Your task to perform on an android device: Go to privacy settings Image 0: 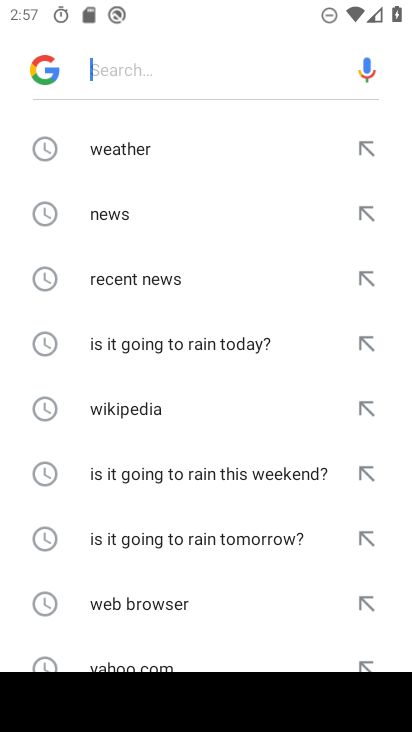
Step 0: press home button
Your task to perform on an android device: Go to privacy settings Image 1: 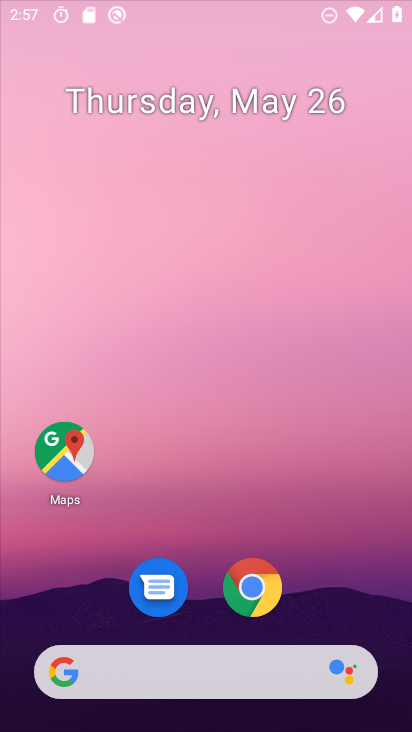
Step 1: drag from (381, 488) to (356, 43)
Your task to perform on an android device: Go to privacy settings Image 2: 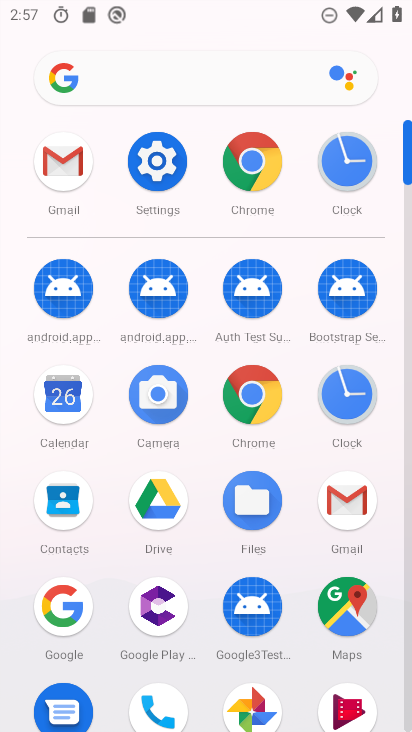
Step 2: click (161, 173)
Your task to perform on an android device: Go to privacy settings Image 3: 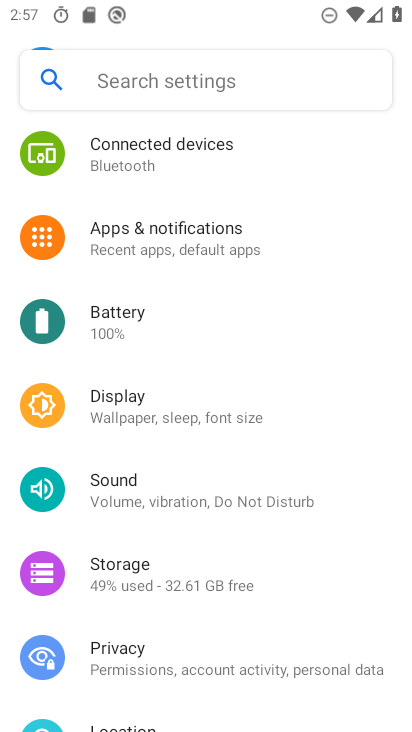
Step 3: drag from (231, 512) to (236, 299)
Your task to perform on an android device: Go to privacy settings Image 4: 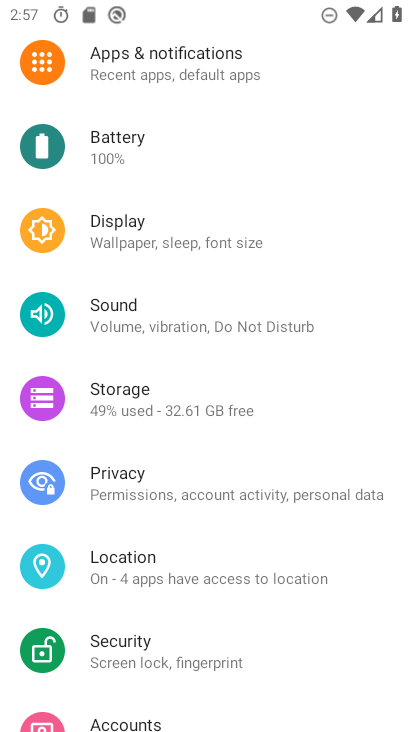
Step 4: click (145, 485)
Your task to perform on an android device: Go to privacy settings Image 5: 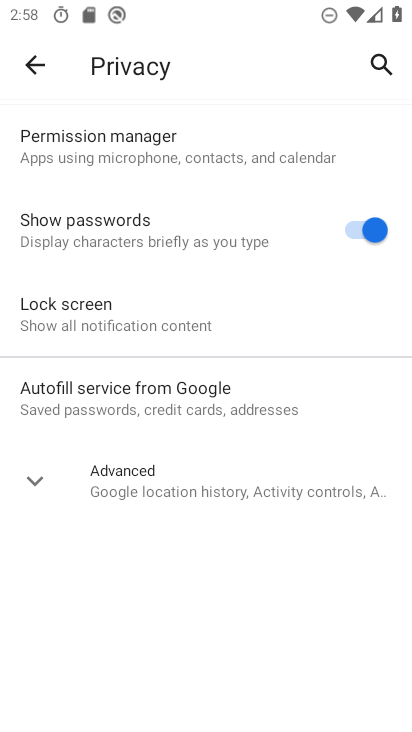
Step 5: task complete